Your task to perform on an android device: open app "Google Sheets" Image 0: 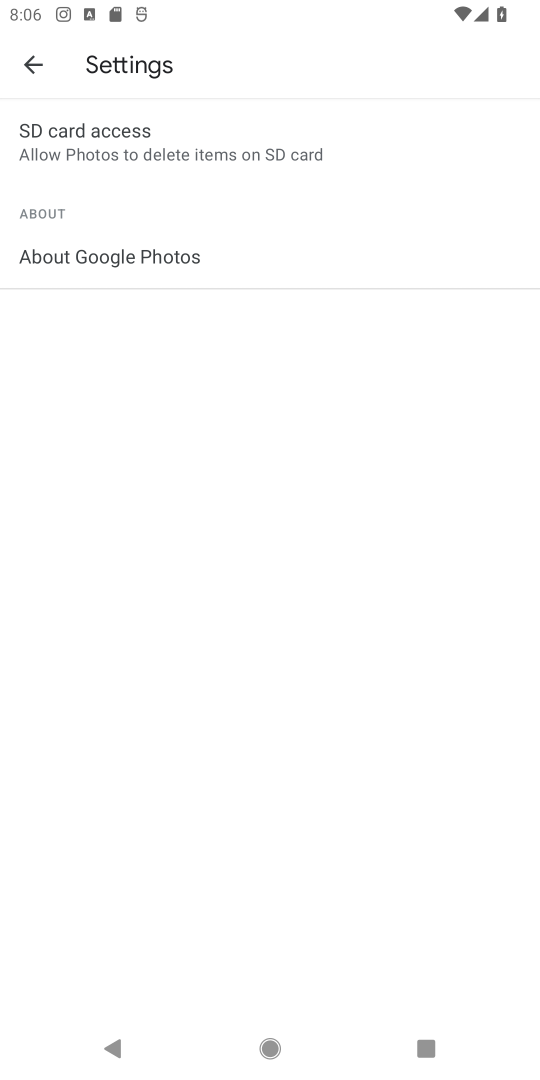
Step 0: press home button
Your task to perform on an android device: open app "Google Sheets" Image 1: 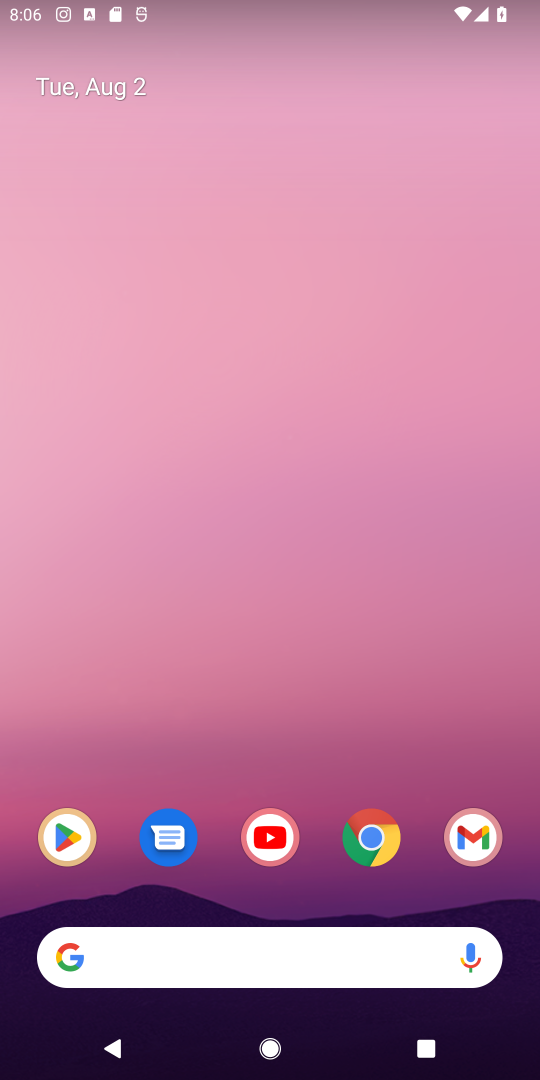
Step 1: click (70, 832)
Your task to perform on an android device: open app "Google Sheets" Image 2: 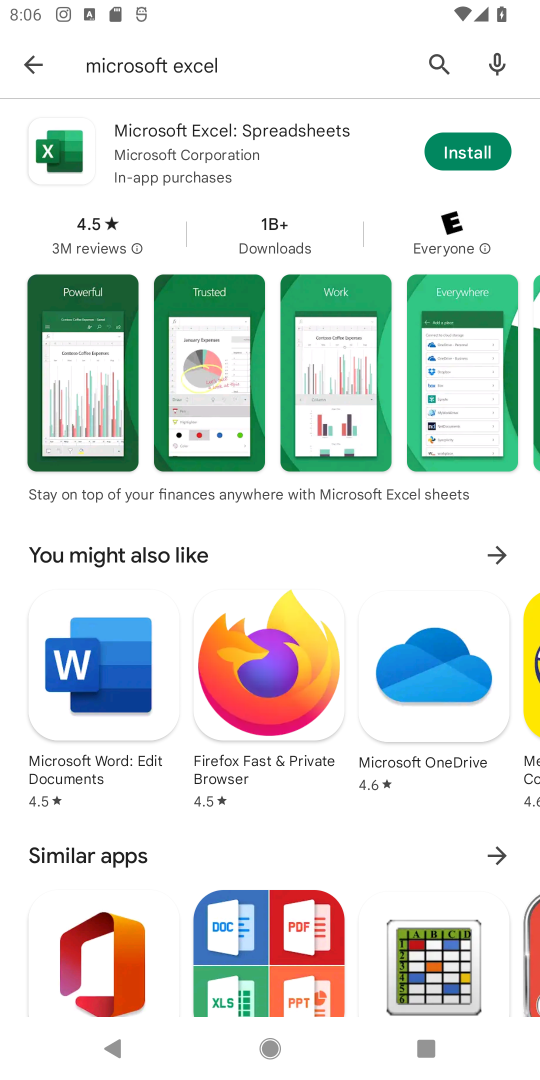
Step 2: click (438, 56)
Your task to perform on an android device: open app "Google Sheets" Image 3: 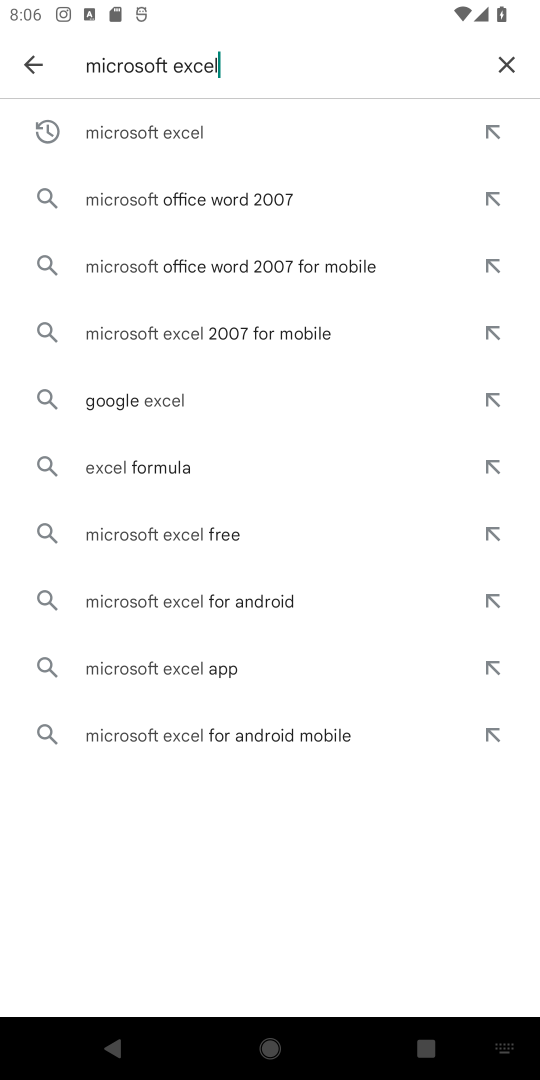
Step 3: click (500, 71)
Your task to perform on an android device: open app "Google Sheets" Image 4: 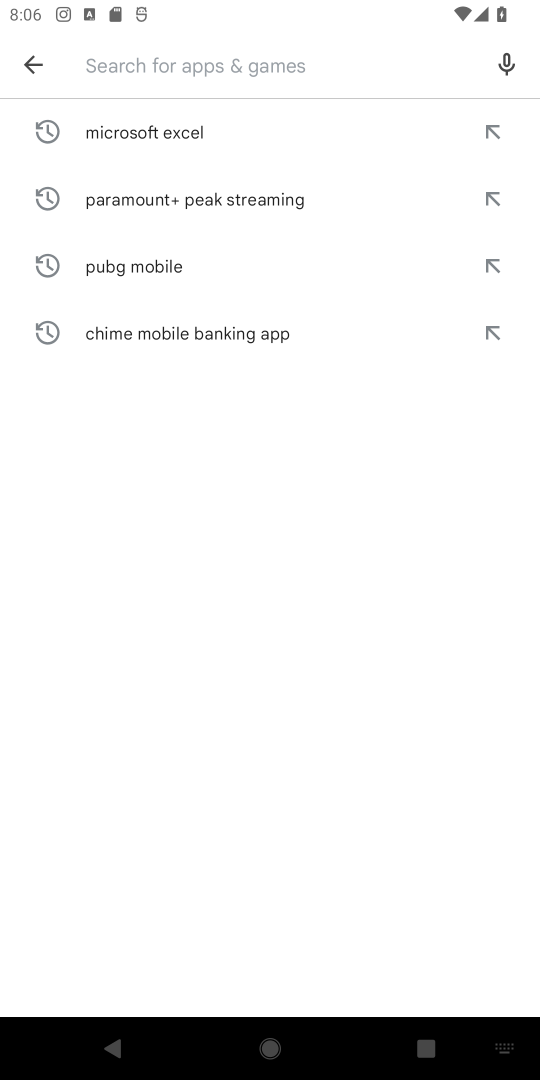
Step 4: type "Google Sheets"
Your task to perform on an android device: open app "Google Sheets" Image 5: 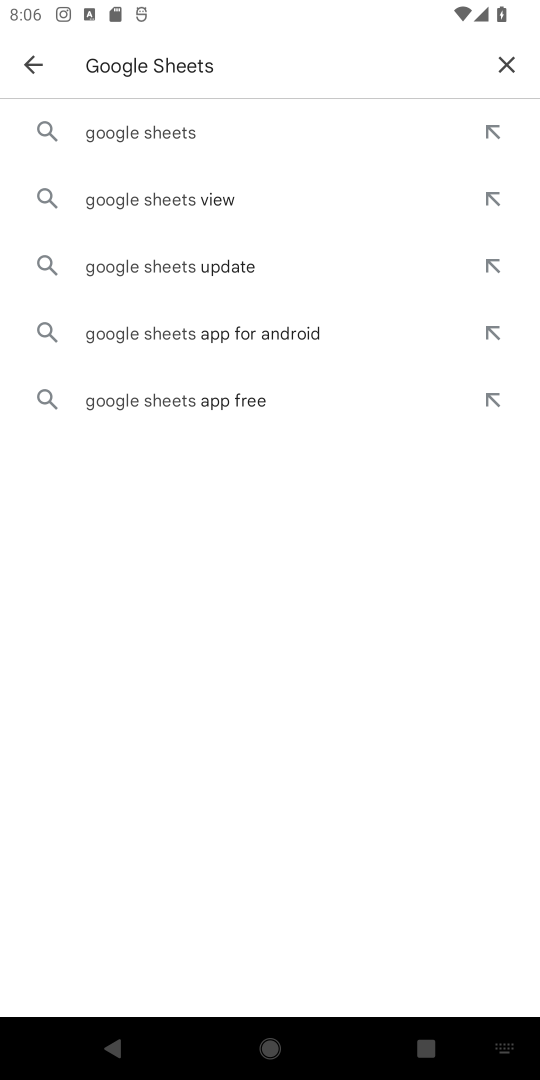
Step 5: click (169, 141)
Your task to perform on an android device: open app "Google Sheets" Image 6: 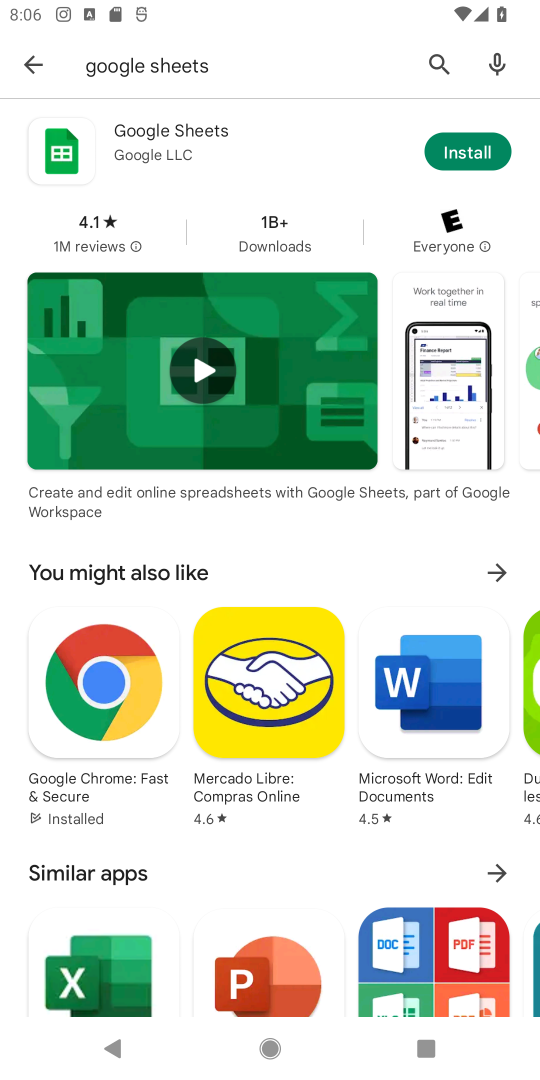
Step 6: task complete